Your task to perform on an android device: Check the news Image 0: 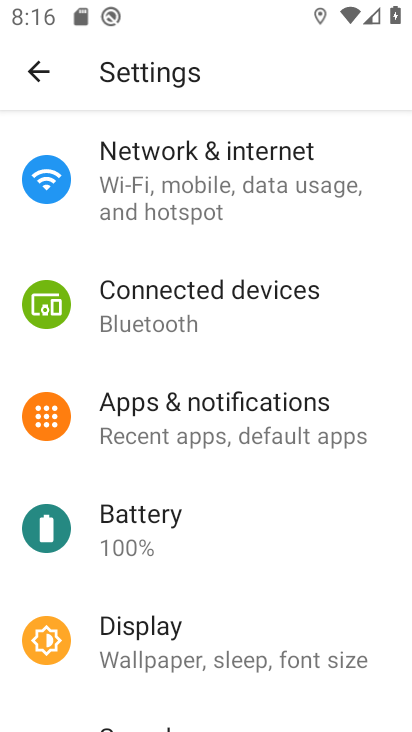
Step 0: press home button
Your task to perform on an android device: Check the news Image 1: 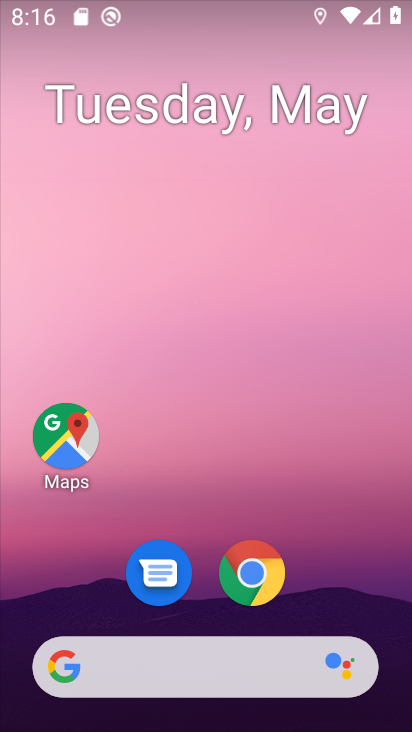
Step 1: click (361, 135)
Your task to perform on an android device: Check the news Image 2: 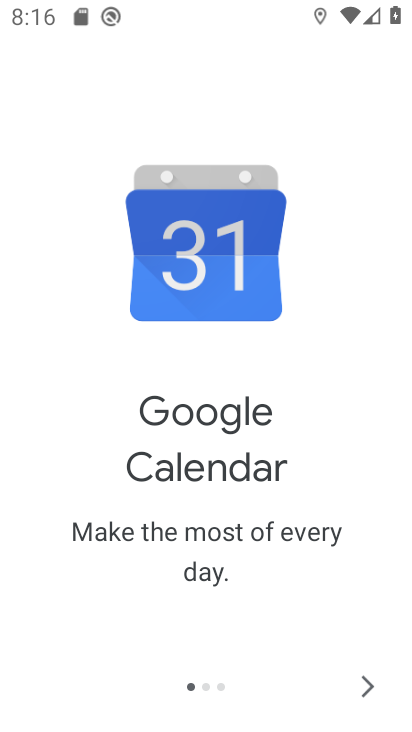
Step 2: press home button
Your task to perform on an android device: Check the news Image 3: 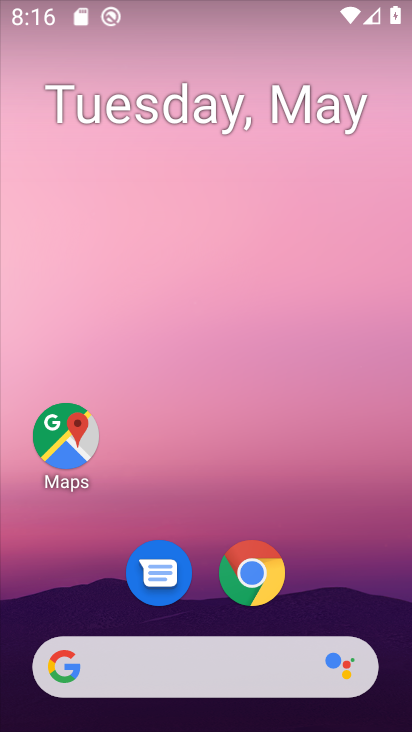
Step 3: drag from (386, 487) to (388, 293)
Your task to perform on an android device: Check the news Image 4: 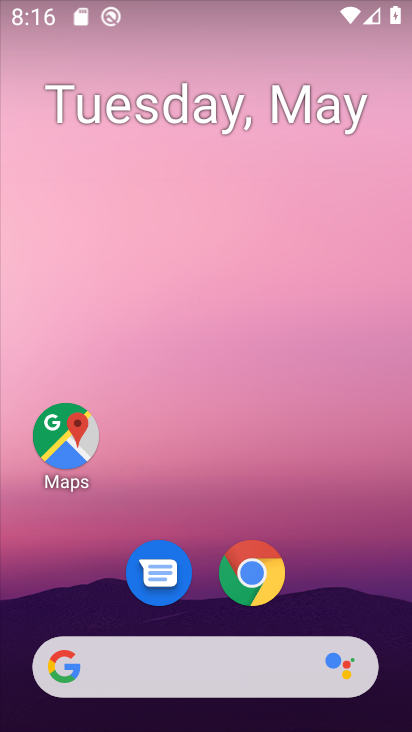
Step 4: drag from (378, 467) to (397, 261)
Your task to perform on an android device: Check the news Image 5: 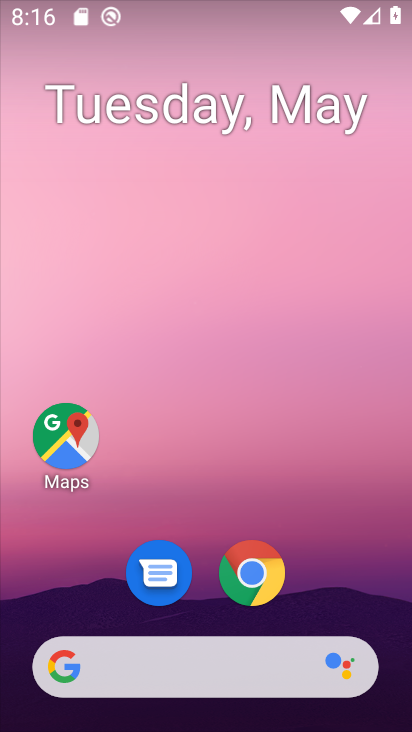
Step 5: drag from (371, 510) to (357, 198)
Your task to perform on an android device: Check the news Image 6: 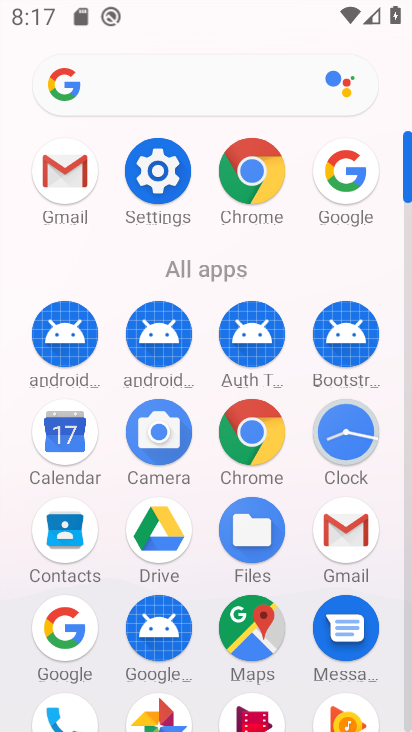
Step 6: click (54, 631)
Your task to perform on an android device: Check the news Image 7: 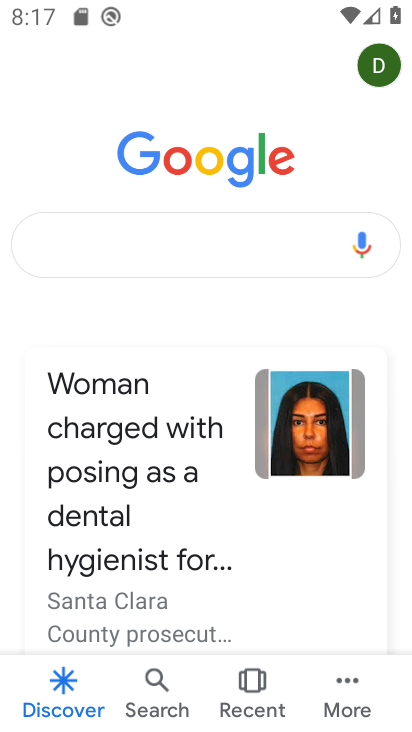
Step 7: task complete